Your task to perform on an android device: Go to sound settings Image 0: 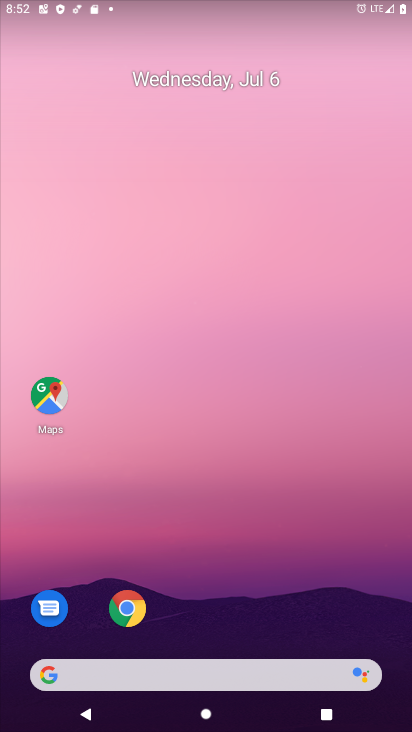
Step 0: drag from (352, 625) to (258, 83)
Your task to perform on an android device: Go to sound settings Image 1: 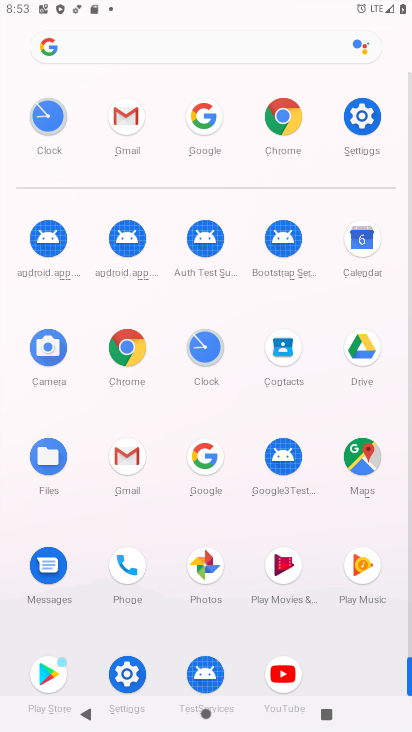
Step 1: click (351, 127)
Your task to perform on an android device: Go to sound settings Image 2: 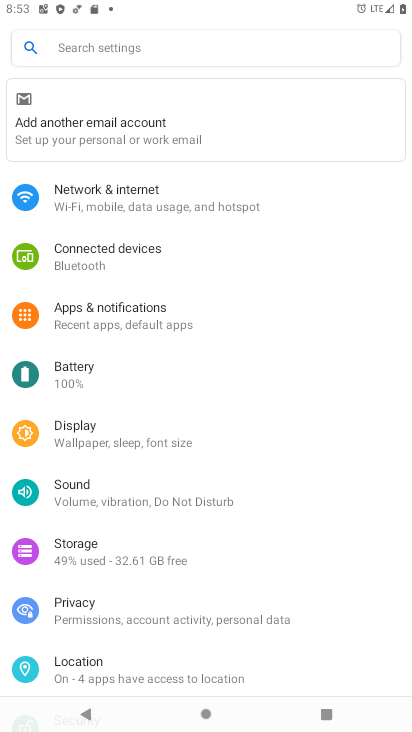
Step 2: click (101, 506)
Your task to perform on an android device: Go to sound settings Image 3: 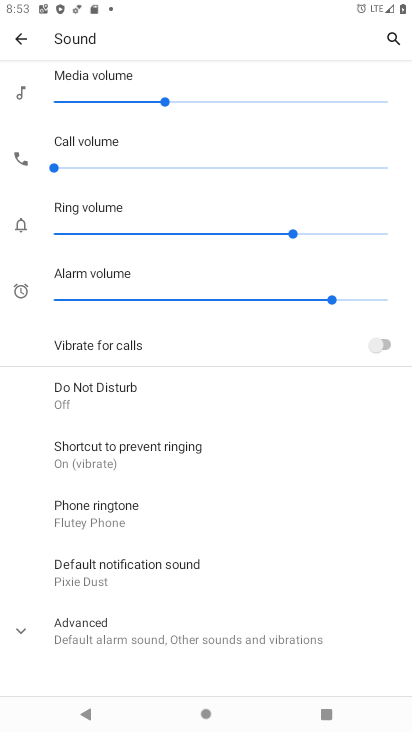
Step 3: task complete